Your task to perform on an android device: change timer sound Image 0: 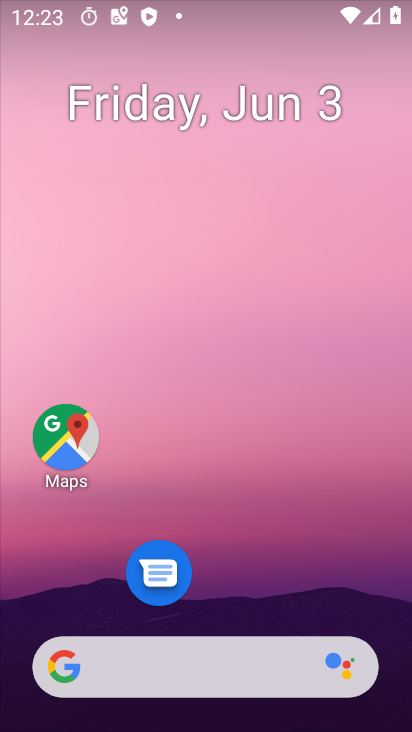
Step 0: drag from (233, 673) to (256, 7)
Your task to perform on an android device: change timer sound Image 1: 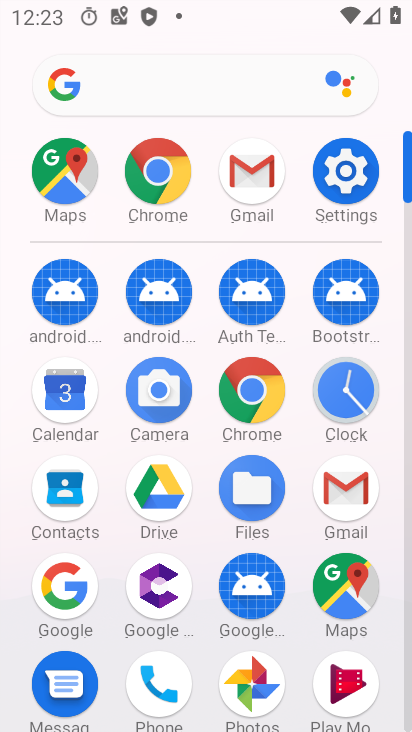
Step 1: click (340, 368)
Your task to perform on an android device: change timer sound Image 2: 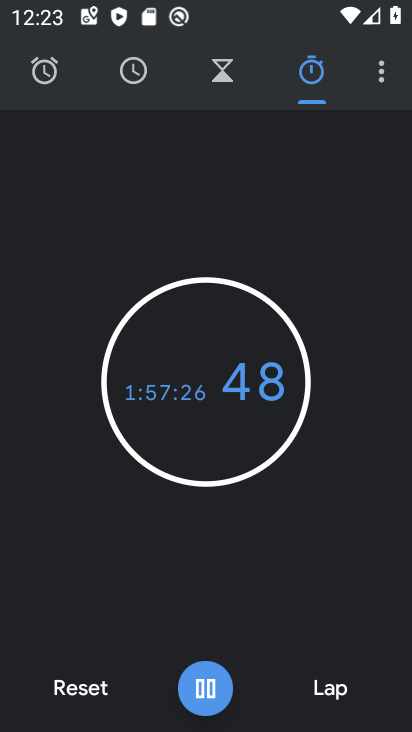
Step 2: click (383, 75)
Your task to perform on an android device: change timer sound Image 3: 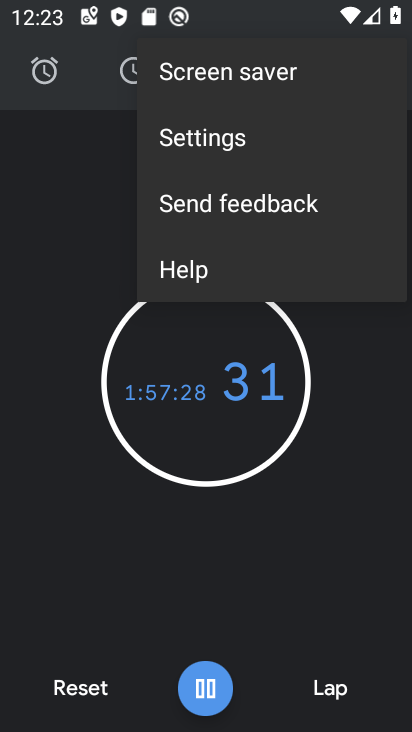
Step 3: click (271, 137)
Your task to perform on an android device: change timer sound Image 4: 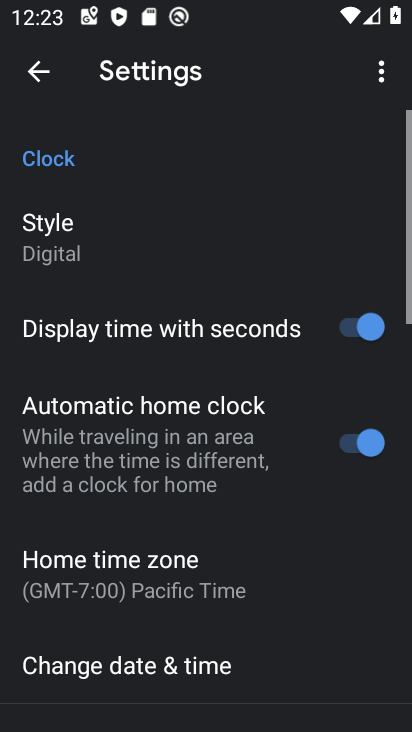
Step 4: drag from (330, 556) to (248, 121)
Your task to perform on an android device: change timer sound Image 5: 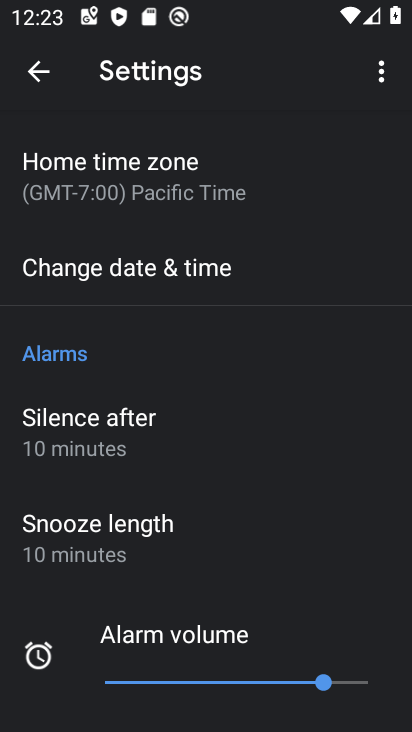
Step 5: drag from (274, 627) to (289, 176)
Your task to perform on an android device: change timer sound Image 6: 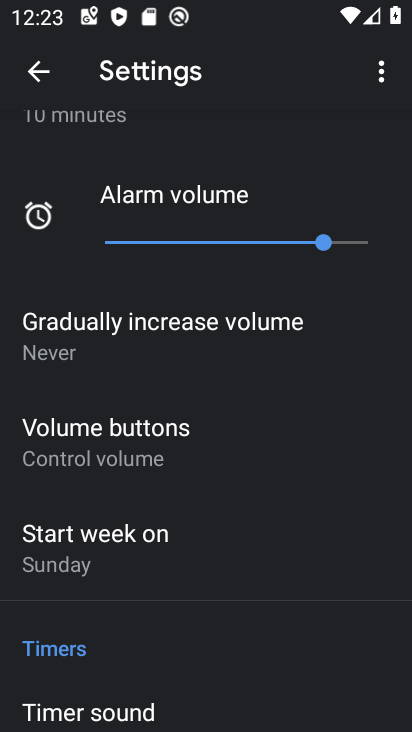
Step 6: drag from (265, 595) to (259, 249)
Your task to perform on an android device: change timer sound Image 7: 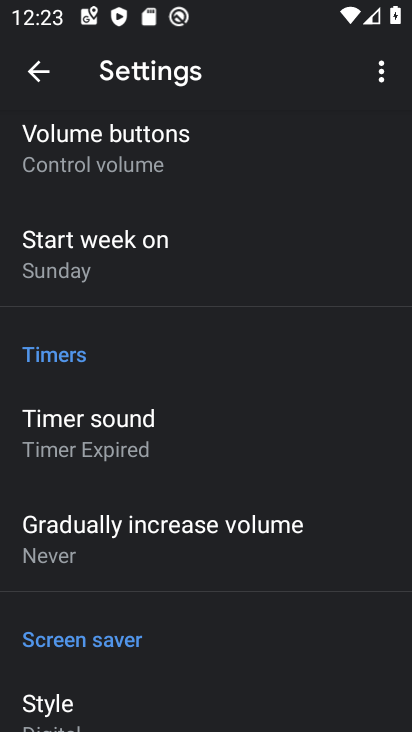
Step 7: click (133, 424)
Your task to perform on an android device: change timer sound Image 8: 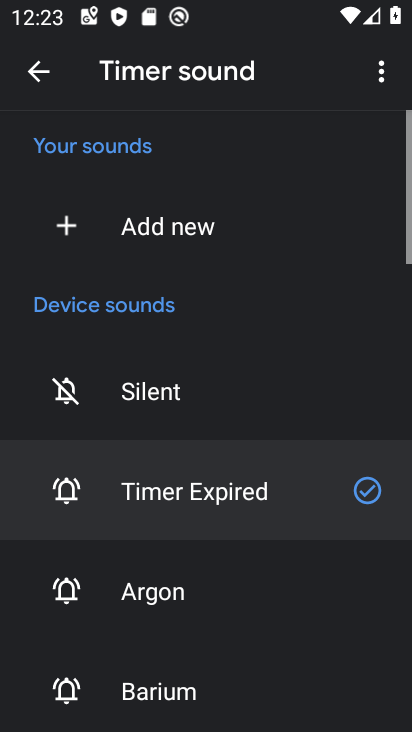
Step 8: click (160, 581)
Your task to perform on an android device: change timer sound Image 9: 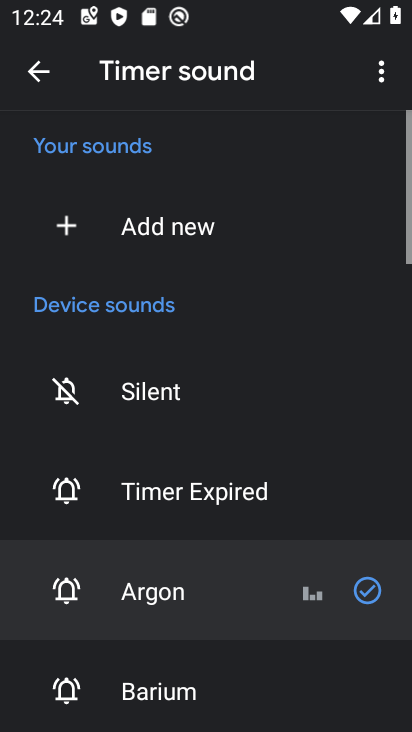
Step 9: task complete